Your task to perform on an android device: What's the weather? Image 0: 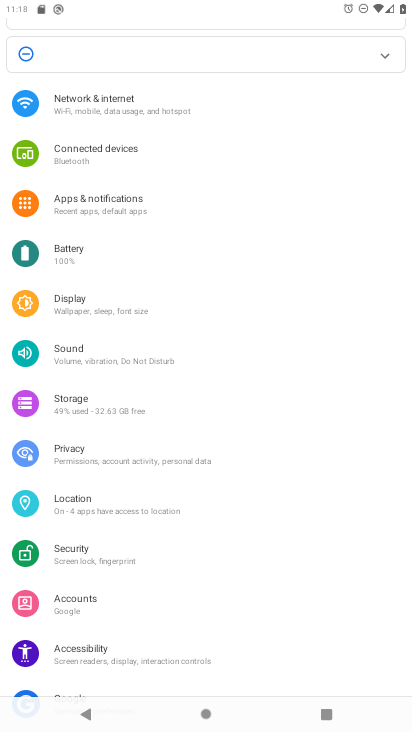
Step 0: press home button
Your task to perform on an android device: What's the weather? Image 1: 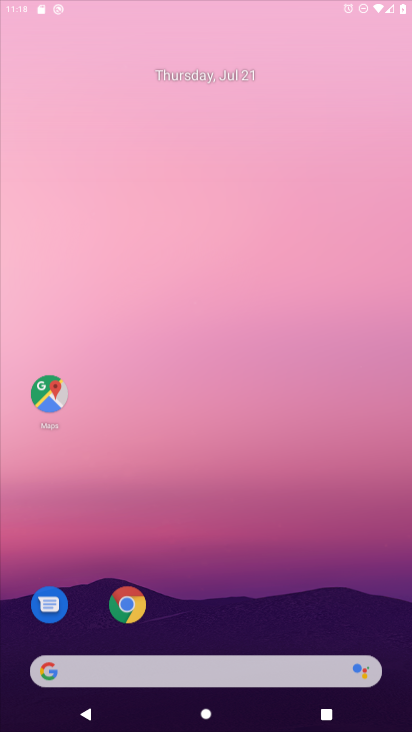
Step 1: drag from (386, 652) to (175, 36)
Your task to perform on an android device: What's the weather? Image 2: 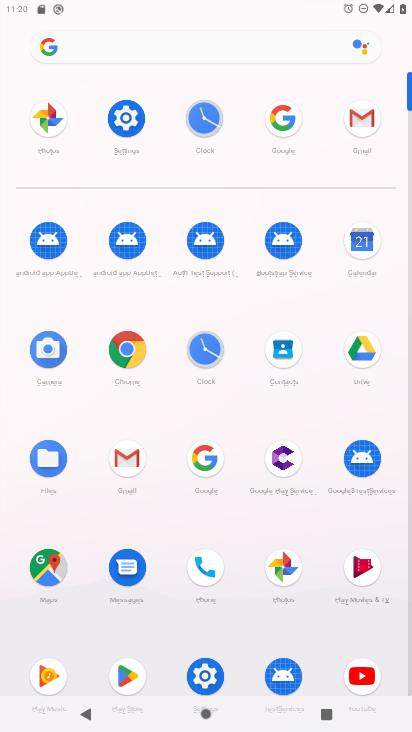
Step 2: click (208, 442)
Your task to perform on an android device: What's the weather? Image 3: 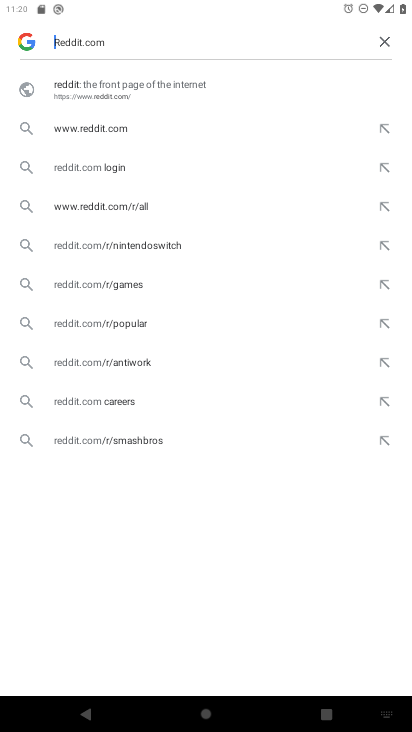
Step 3: click (384, 48)
Your task to perform on an android device: What's the weather? Image 4: 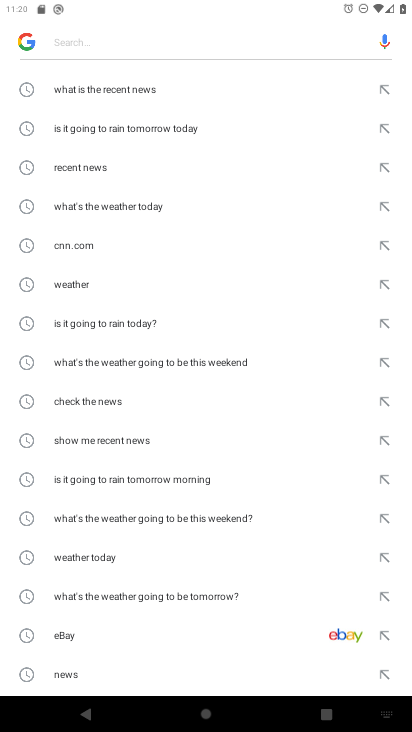
Step 4: type "What's the weather?"
Your task to perform on an android device: What's the weather? Image 5: 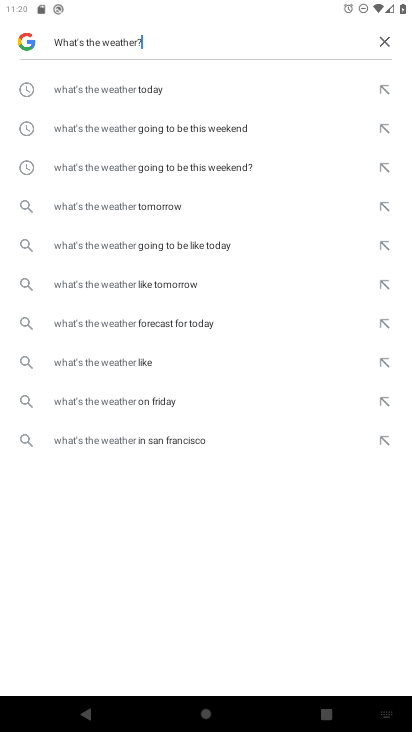
Step 5: task complete